Your task to perform on an android device: Open the phone app and click the voicemail tab. Image 0: 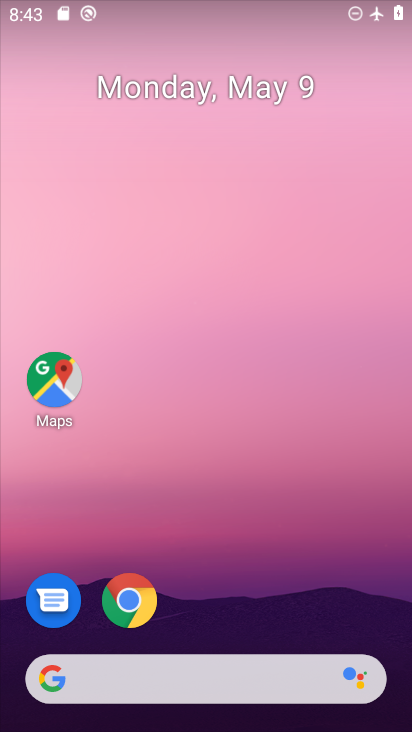
Step 0: drag from (283, 568) to (235, 15)
Your task to perform on an android device: Open the phone app and click the voicemail tab. Image 1: 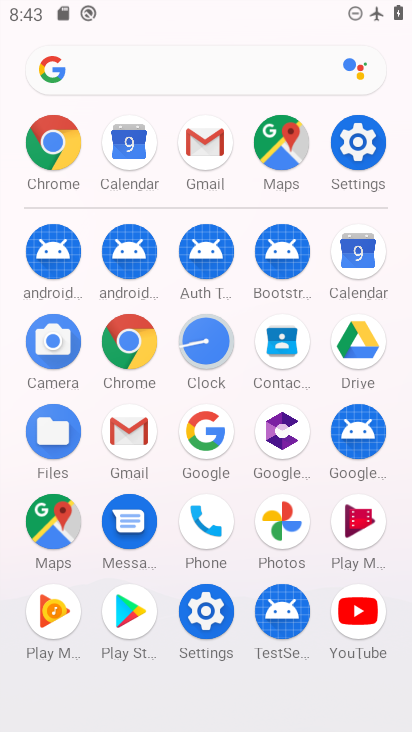
Step 1: click (201, 517)
Your task to perform on an android device: Open the phone app and click the voicemail tab. Image 2: 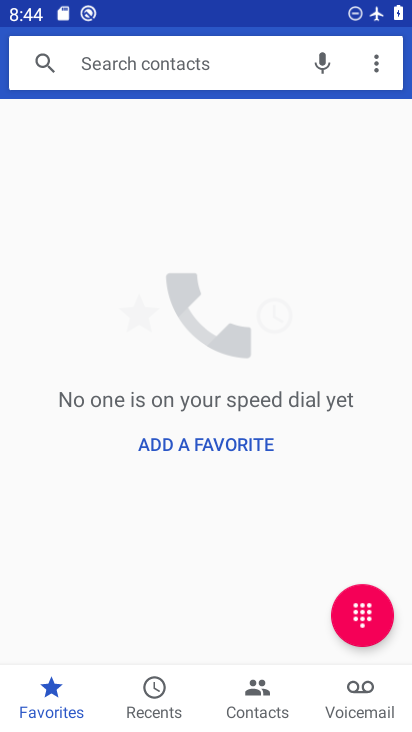
Step 2: click (360, 699)
Your task to perform on an android device: Open the phone app and click the voicemail tab. Image 3: 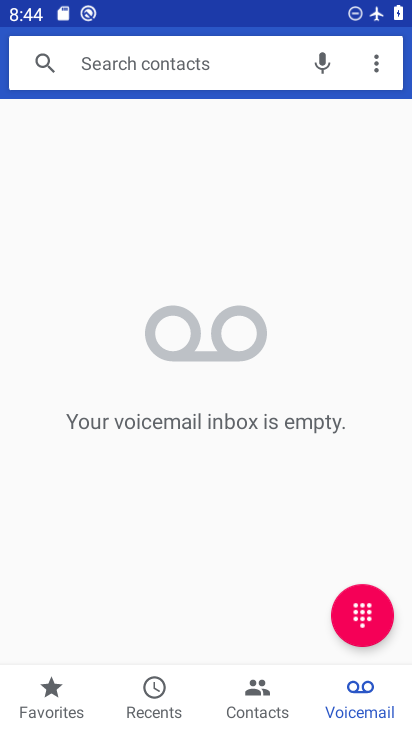
Step 3: task complete